Your task to perform on an android device: Empty the shopping cart on target. Search for usb-b on target, select the first entry, add it to the cart, then select checkout. Image 0: 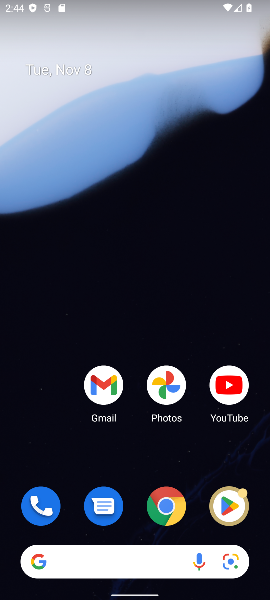
Step 0: drag from (152, 520) to (184, 257)
Your task to perform on an android device: Empty the shopping cart on target. Search for usb-b on target, select the first entry, add it to the cart, then select checkout. Image 1: 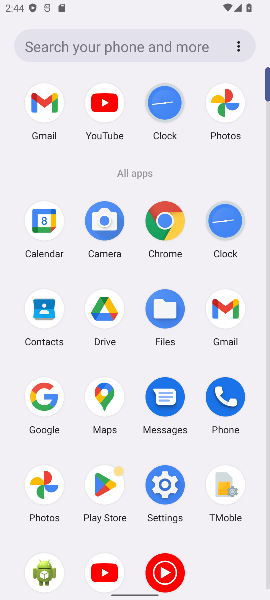
Step 1: click (45, 393)
Your task to perform on an android device: Empty the shopping cart on target. Search for usb-b on target, select the first entry, add it to the cart, then select checkout. Image 2: 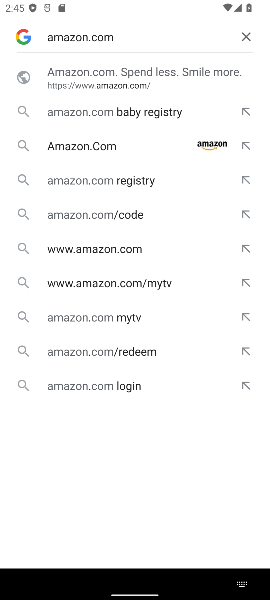
Step 2: click (248, 33)
Your task to perform on an android device: Empty the shopping cart on target. Search for usb-b on target, select the first entry, add it to the cart, then select checkout. Image 3: 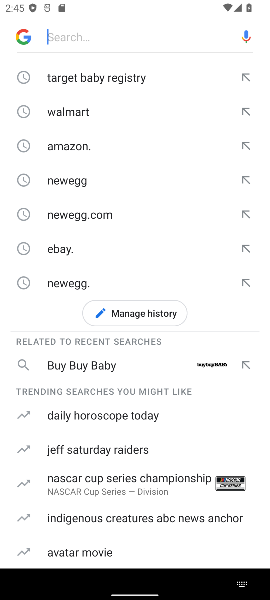
Step 3: type "target"
Your task to perform on an android device: Empty the shopping cart on target. Search for usb-b on target, select the first entry, add it to the cart, then select checkout. Image 4: 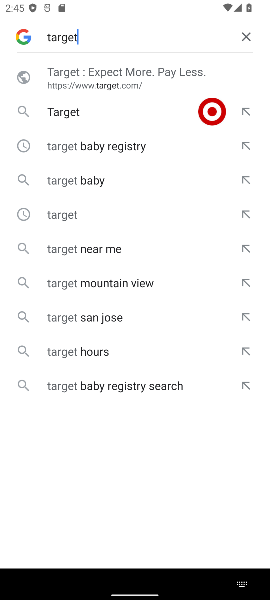
Step 4: click (159, 106)
Your task to perform on an android device: Empty the shopping cart on target. Search for usb-b on target, select the first entry, add it to the cart, then select checkout. Image 5: 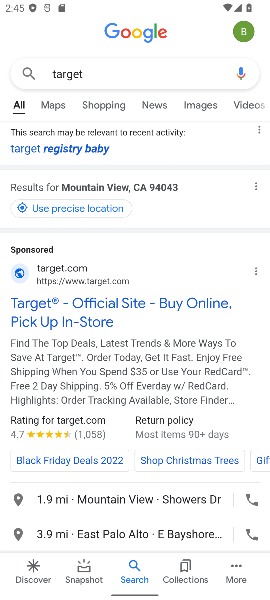
Step 5: click (67, 301)
Your task to perform on an android device: Empty the shopping cart on target. Search for usb-b on target, select the first entry, add it to the cart, then select checkout. Image 6: 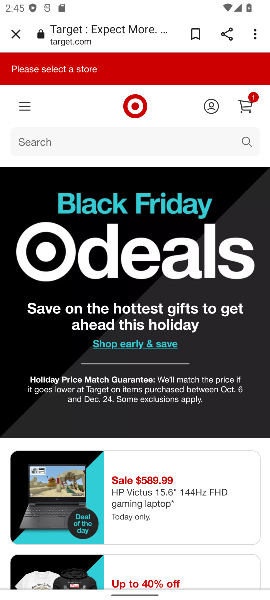
Step 6: click (160, 147)
Your task to perform on an android device: Empty the shopping cart on target. Search for usb-b on target, select the first entry, add it to the cart, then select checkout. Image 7: 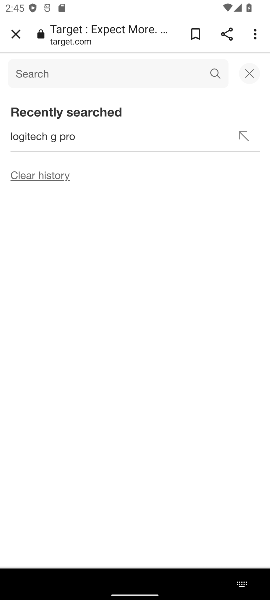
Step 7: type "usb-b"
Your task to perform on an android device: Empty the shopping cart on target. Search for usb-b on target, select the first entry, add it to the cart, then select checkout. Image 8: 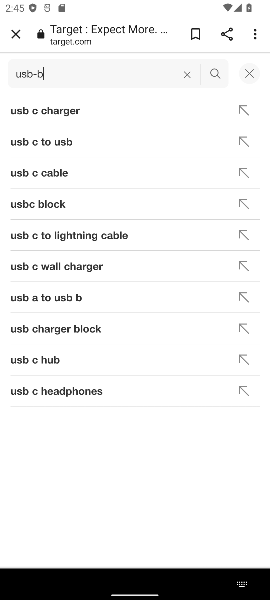
Step 8: click (78, 175)
Your task to perform on an android device: Empty the shopping cart on target. Search for usb-b on target, select the first entry, add it to the cart, then select checkout. Image 9: 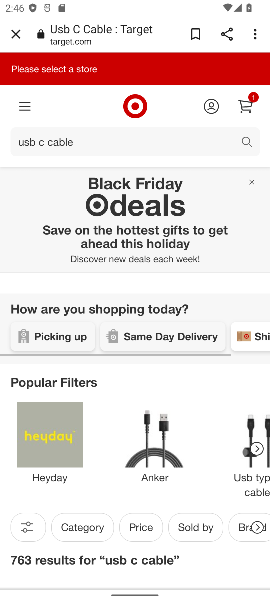
Step 9: task complete